Your task to perform on an android device: open app "McDonald's" (install if not already installed), go to login, and select forgot password Image 0: 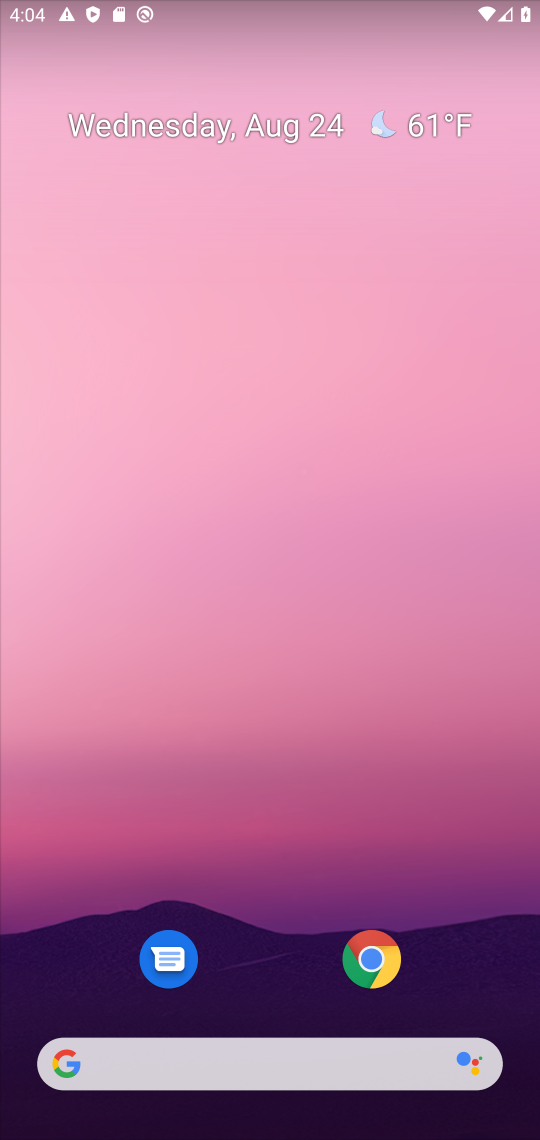
Step 0: drag from (312, 1028) to (299, 200)
Your task to perform on an android device: open app "McDonald's" (install if not already installed), go to login, and select forgot password Image 1: 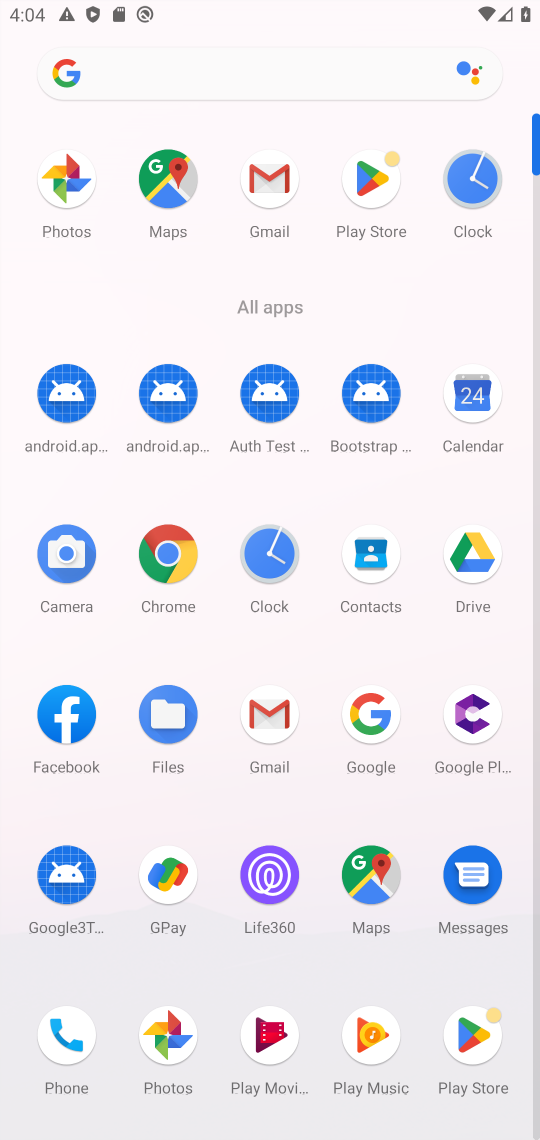
Step 1: click (358, 193)
Your task to perform on an android device: open app "McDonald's" (install if not already installed), go to login, and select forgot password Image 2: 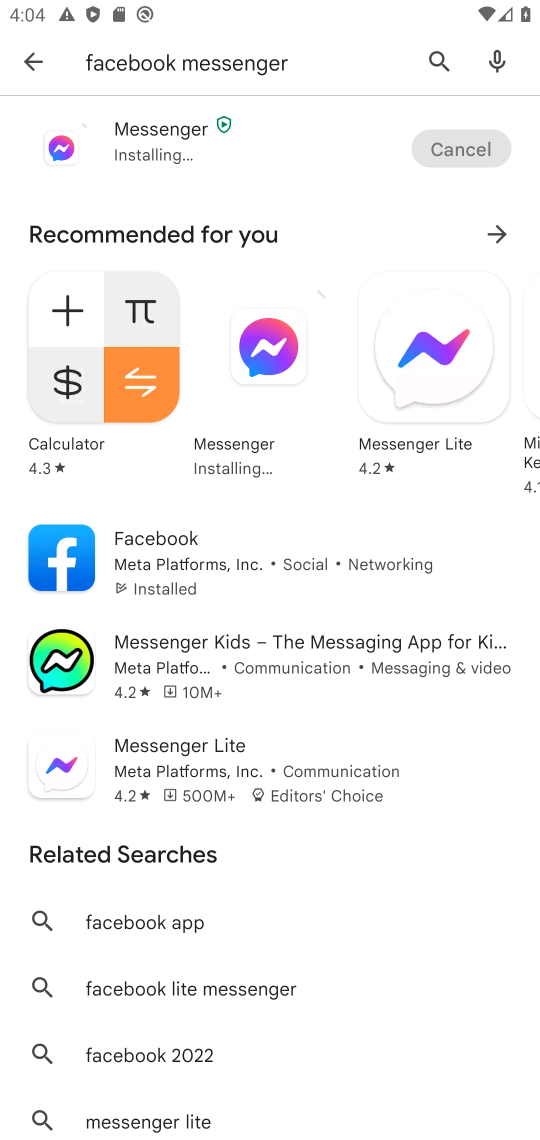
Step 2: click (424, 65)
Your task to perform on an android device: open app "McDonald's" (install if not already installed), go to login, and select forgot password Image 3: 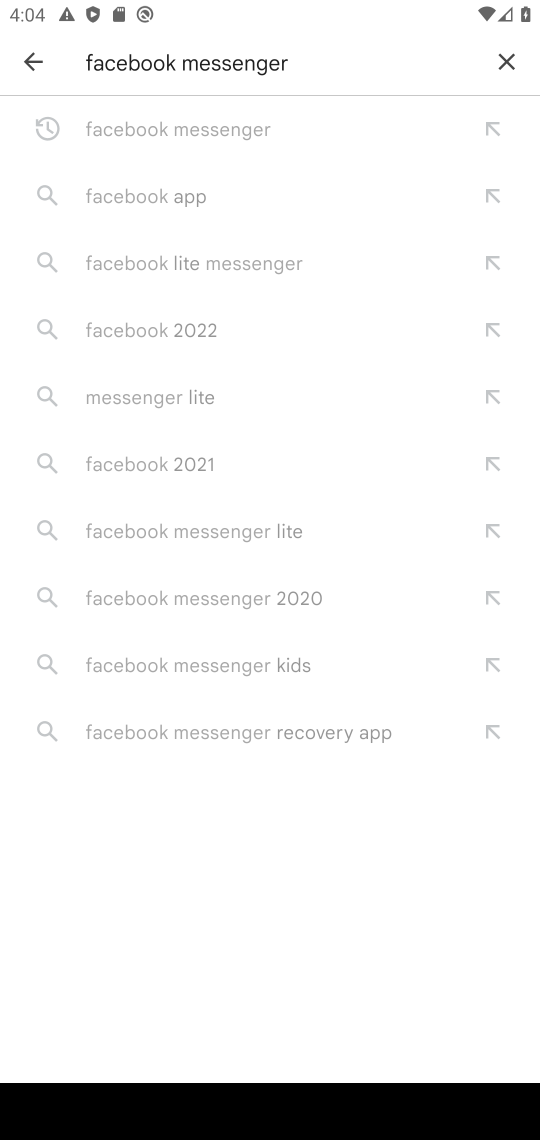
Step 3: click (512, 61)
Your task to perform on an android device: open app "McDonald's" (install if not already installed), go to login, and select forgot password Image 4: 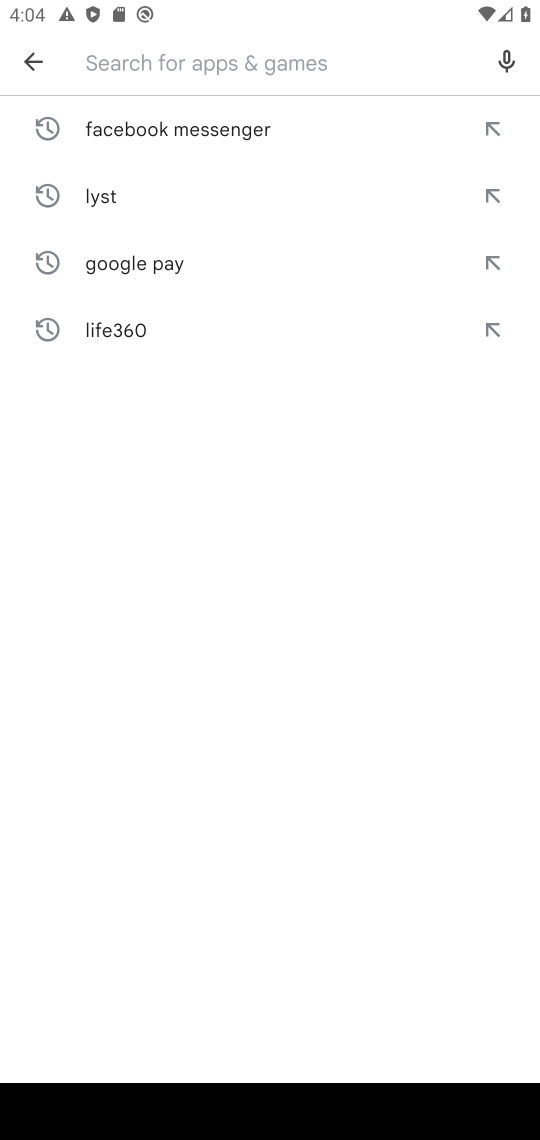
Step 4: type "mcdoland"
Your task to perform on an android device: open app "McDonald's" (install if not already installed), go to login, and select forgot password Image 5: 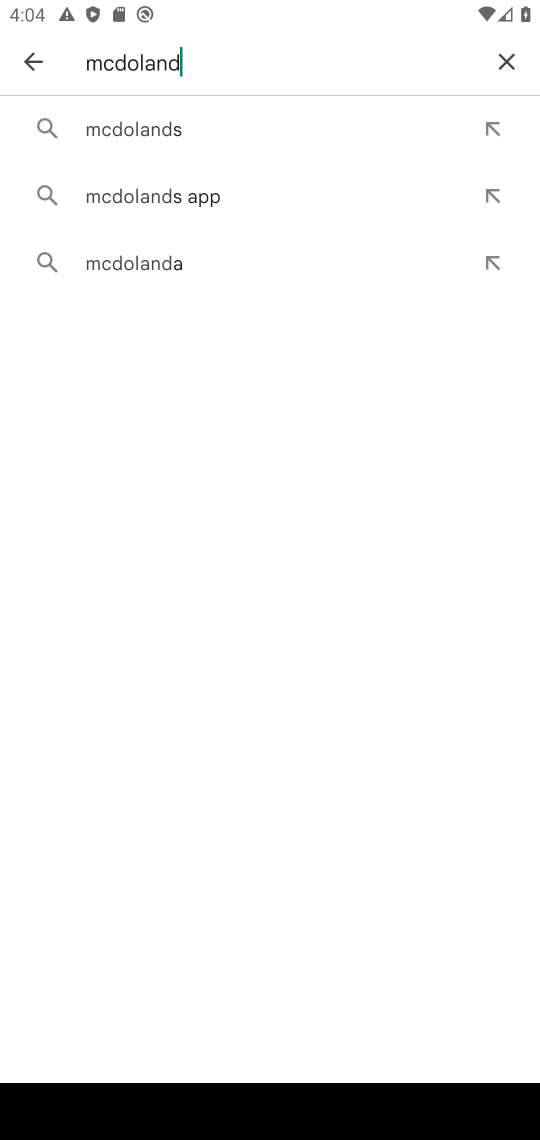
Step 5: click (234, 113)
Your task to perform on an android device: open app "McDonald's" (install if not already installed), go to login, and select forgot password Image 6: 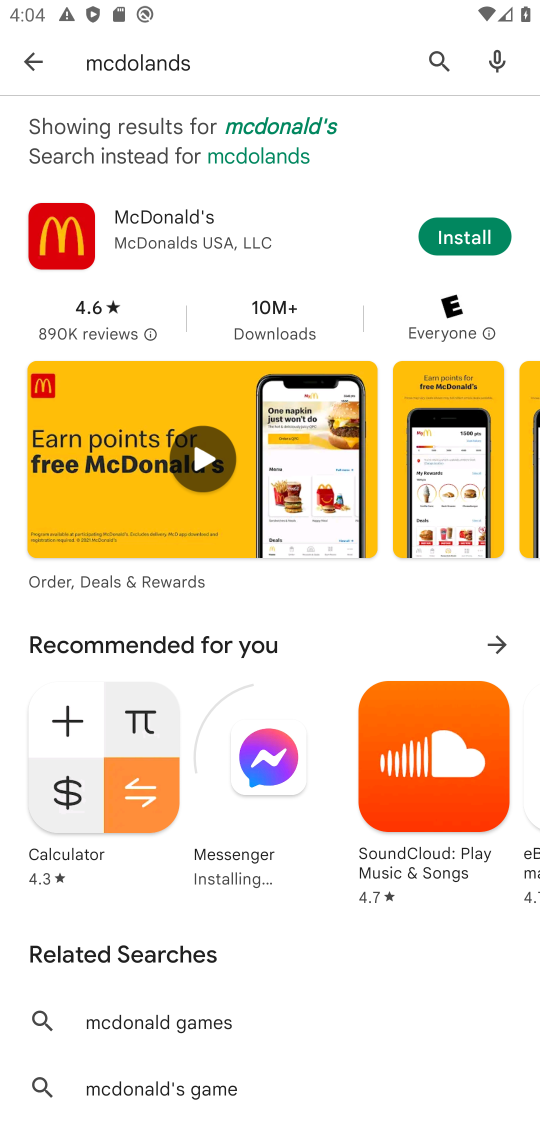
Step 6: click (477, 222)
Your task to perform on an android device: open app "McDonald's" (install if not already installed), go to login, and select forgot password Image 7: 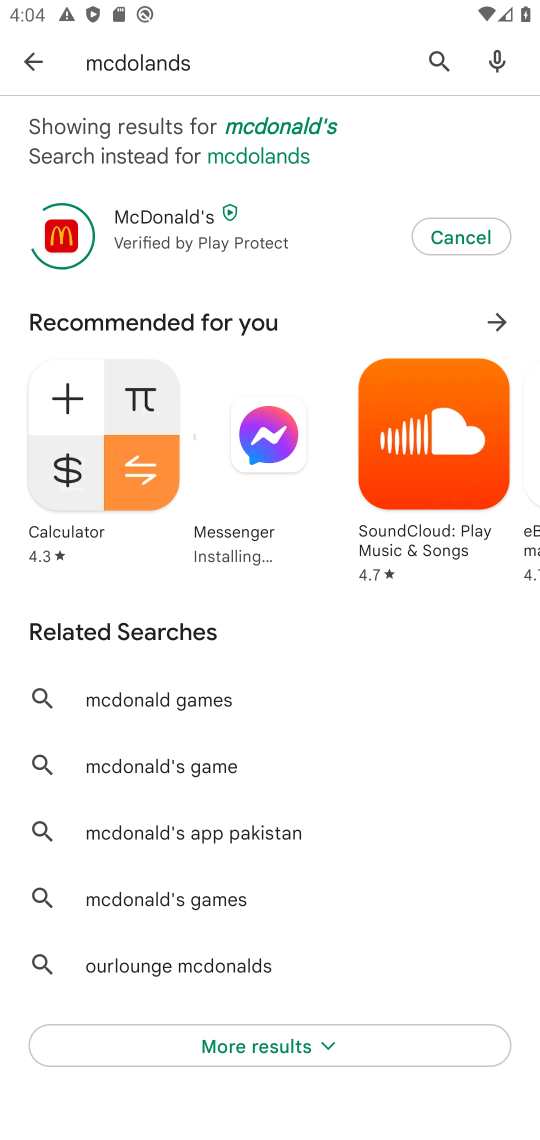
Step 7: task complete